Your task to perform on an android device: Open calendar and show me the first week of next month Image 0: 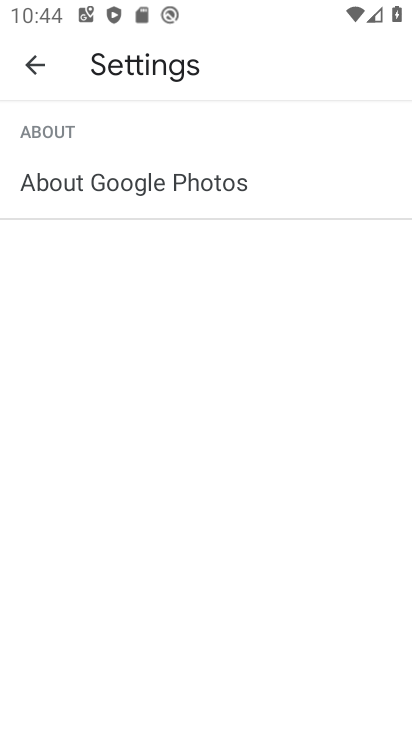
Step 0: press home button
Your task to perform on an android device: Open calendar and show me the first week of next month Image 1: 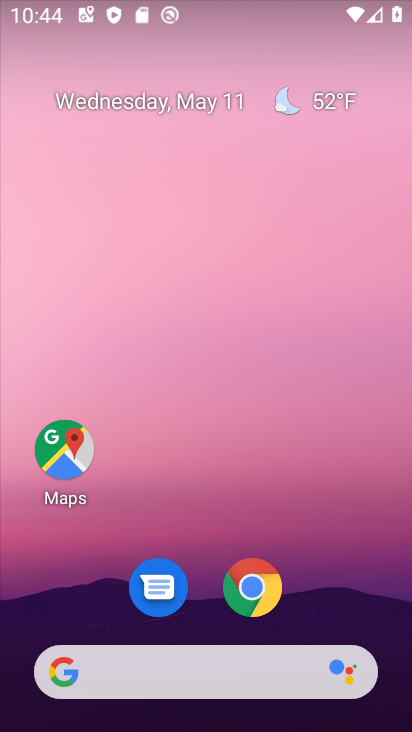
Step 1: drag from (216, 701) to (289, 223)
Your task to perform on an android device: Open calendar and show me the first week of next month Image 2: 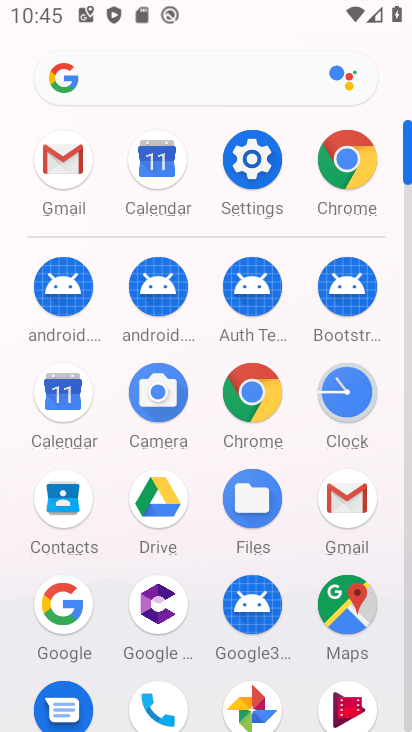
Step 2: click (59, 402)
Your task to perform on an android device: Open calendar and show me the first week of next month Image 3: 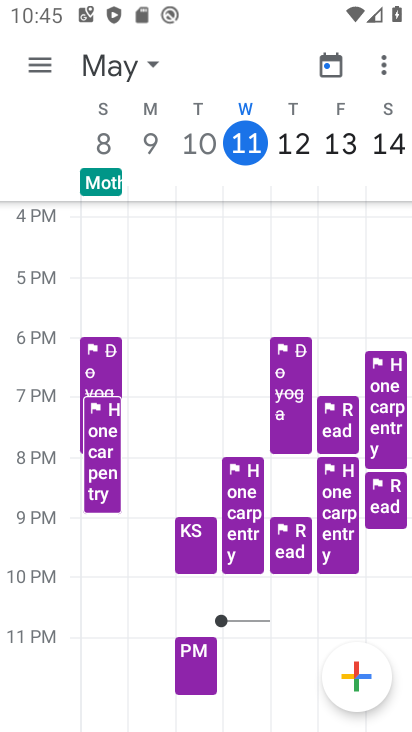
Step 3: click (39, 71)
Your task to perform on an android device: Open calendar and show me the first week of next month Image 4: 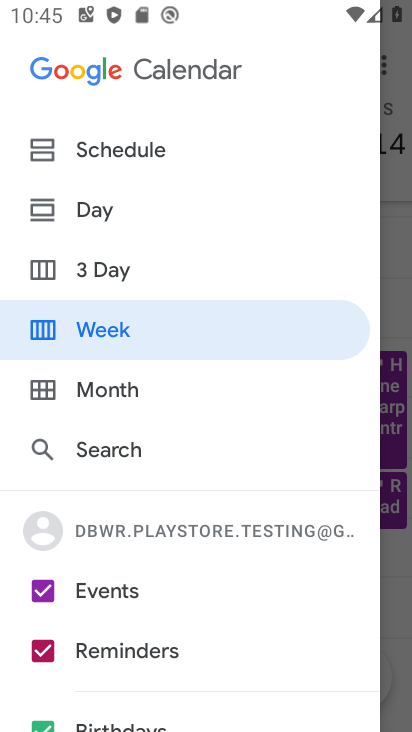
Step 4: click (103, 379)
Your task to perform on an android device: Open calendar and show me the first week of next month Image 5: 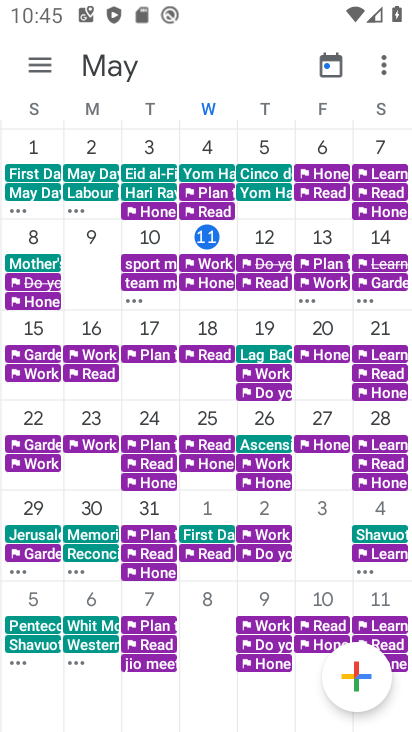
Step 5: drag from (398, 425) to (0, 501)
Your task to perform on an android device: Open calendar and show me the first week of next month Image 6: 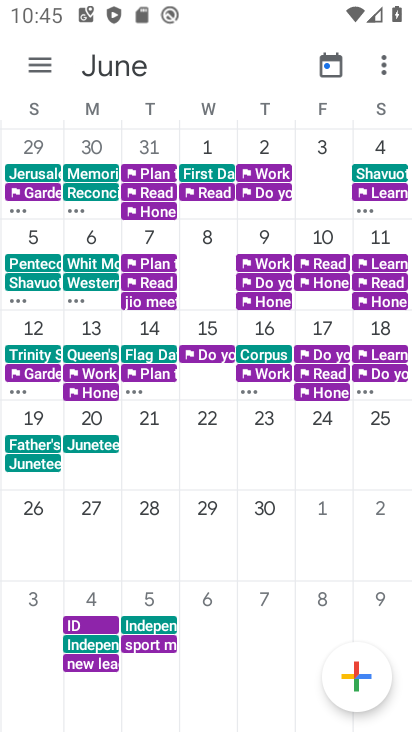
Step 6: click (215, 147)
Your task to perform on an android device: Open calendar and show me the first week of next month Image 7: 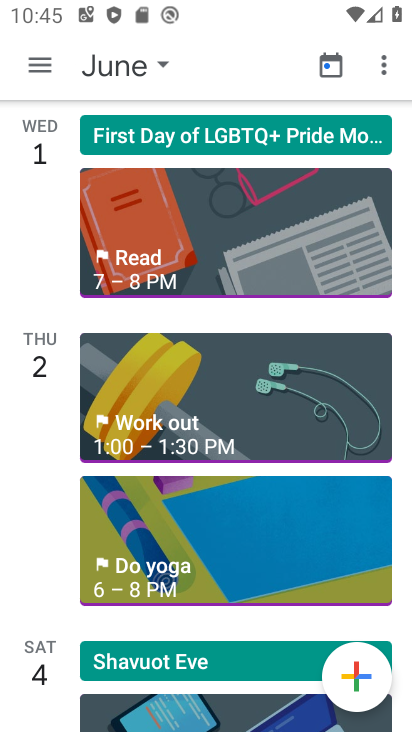
Step 7: task complete